Your task to perform on an android device: clear history in the chrome app Image 0: 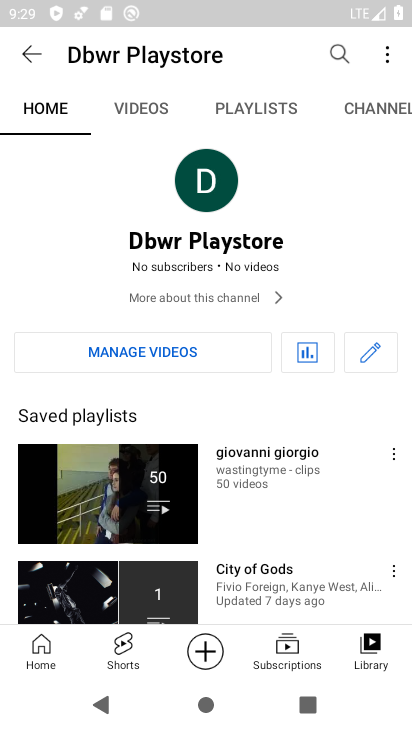
Step 0: press home button
Your task to perform on an android device: clear history in the chrome app Image 1: 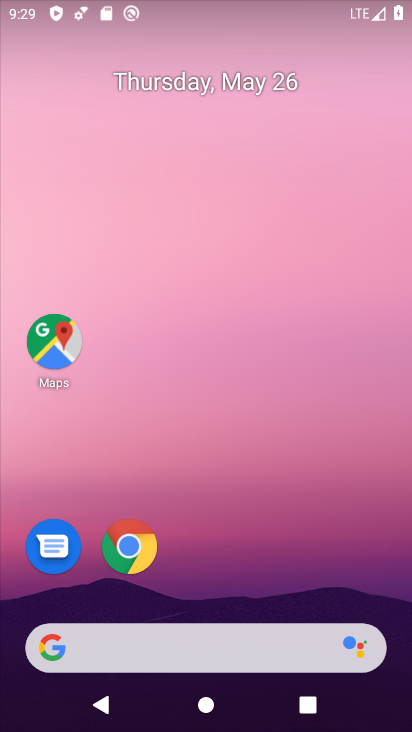
Step 1: drag from (330, 482) to (231, 57)
Your task to perform on an android device: clear history in the chrome app Image 2: 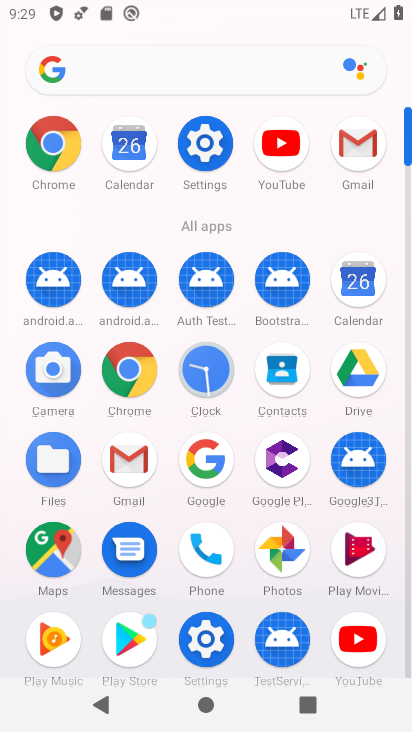
Step 2: click (127, 359)
Your task to perform on an android device: clear history in the chrome app Image 3: 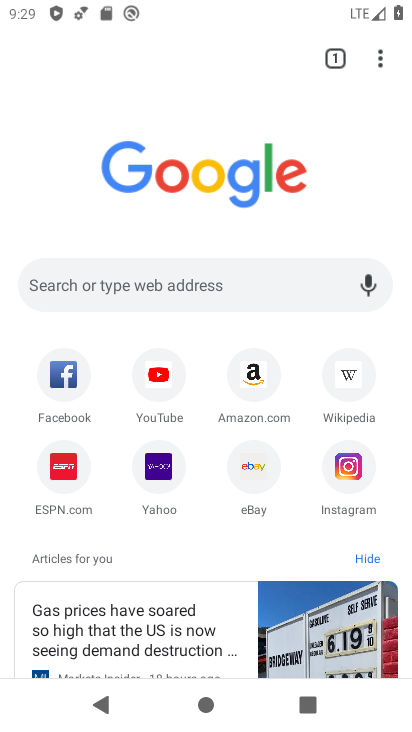
Step 3: drag from (379, 71) to (173, 320)
Your task to perform on an android device: clear history in the chrome app Image 4: 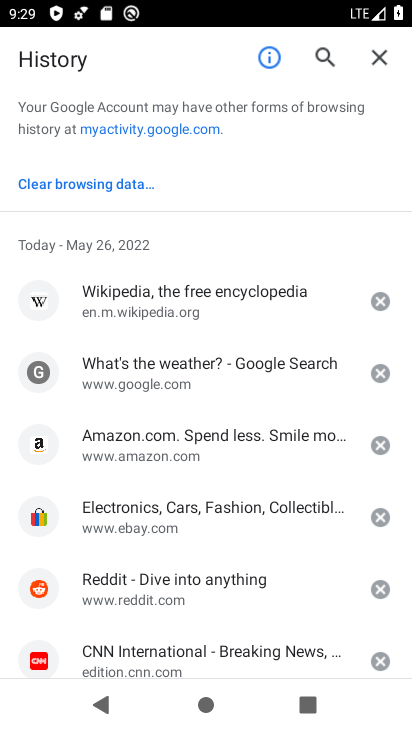
Step 4: click (109, 185)
Your task to perform on an android device: clear history in the chrome app Image 5: 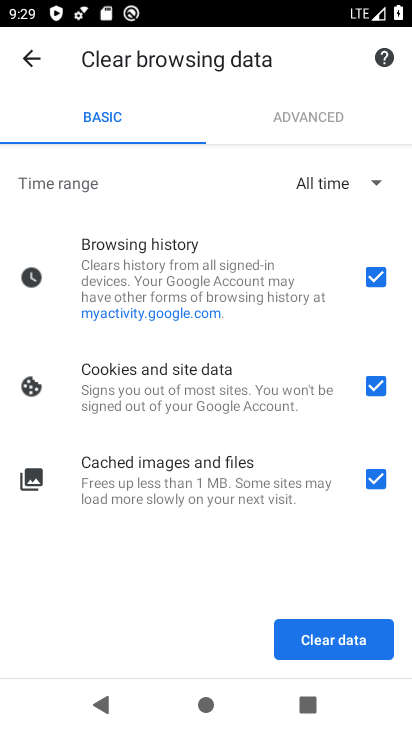
Step 5: click (331, 647)
Your task to perform on an android device: clear history in the chrome app Image 6: 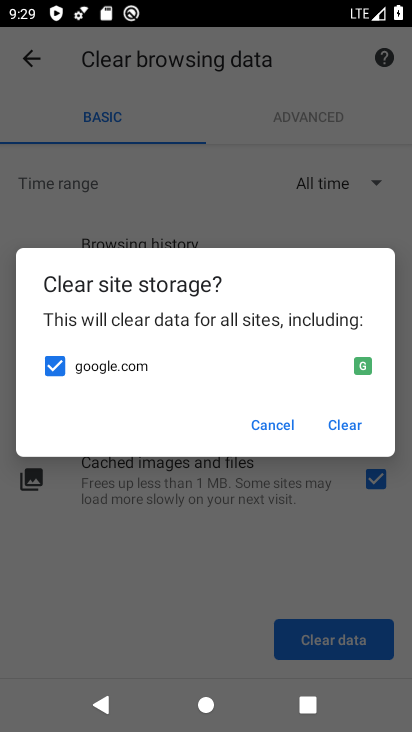
Step 6: click (344, 426)
Your task to perform on an android device: clear history in the chrome app Image 7: 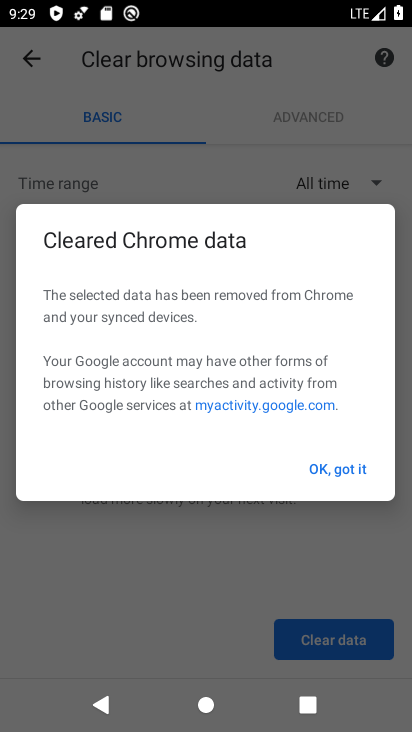
Step 7: click (357, 469)
Your task to perform on an android device: clear history in the chrome app Image 8: 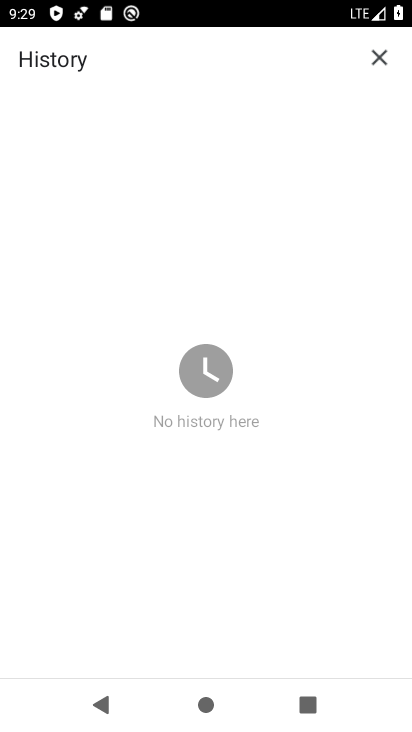
Step 8: task complete